Your task to perform on an android device: toggle translation in the chrome app Image 0: 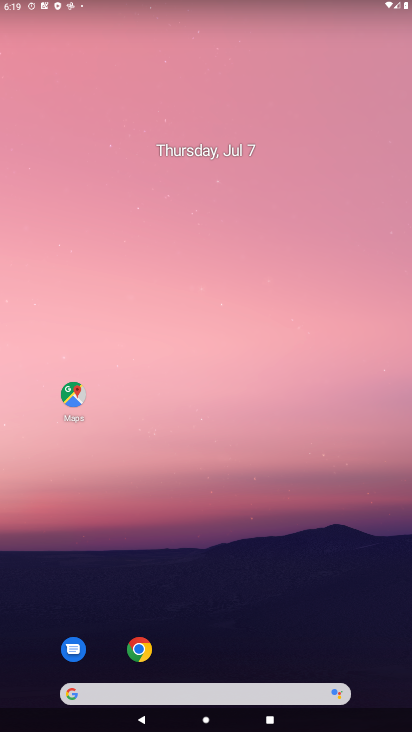
Step 0: drag from (375, 679) to (257, 6)
Your task to perform on an android device: toggle translation in the chrome app Image 1: 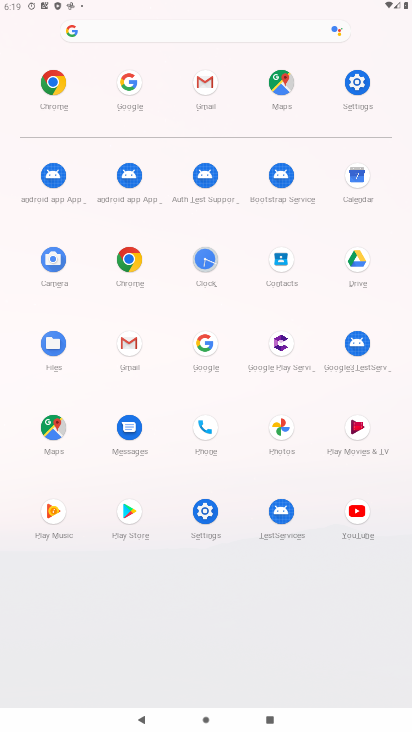
Step 1: click (49, 85)
Your task to perform on an android device: toggle translation in the chrome app Image 2: 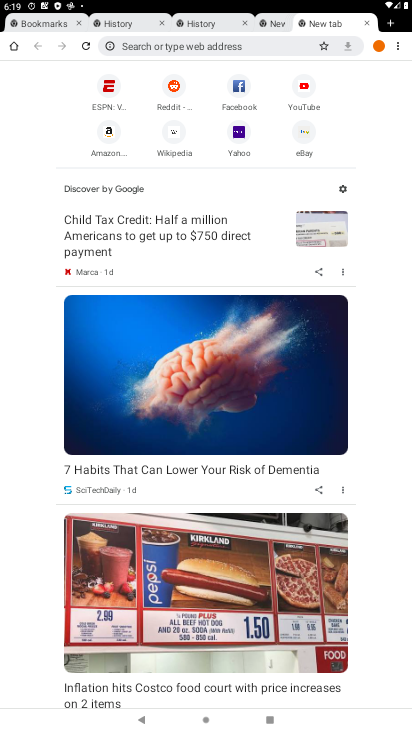
Step 2: click (400, 45)
Your task to perform on an android device: toggle translation in the chrome app Image 3: 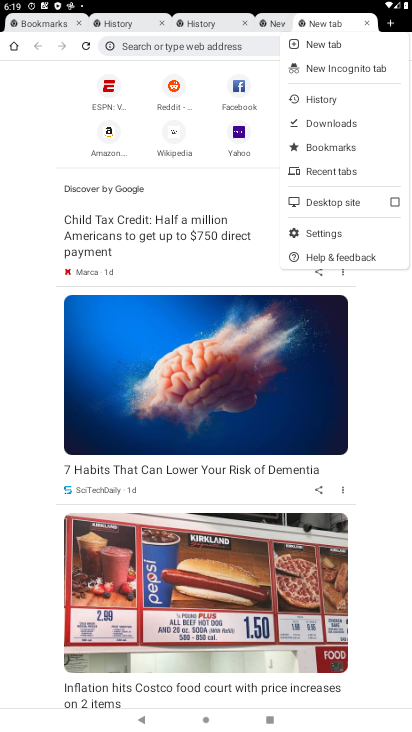
Step 3: click (332, 230)
Your task to perform on an android device: toggle translation in the chrome app Image 4: 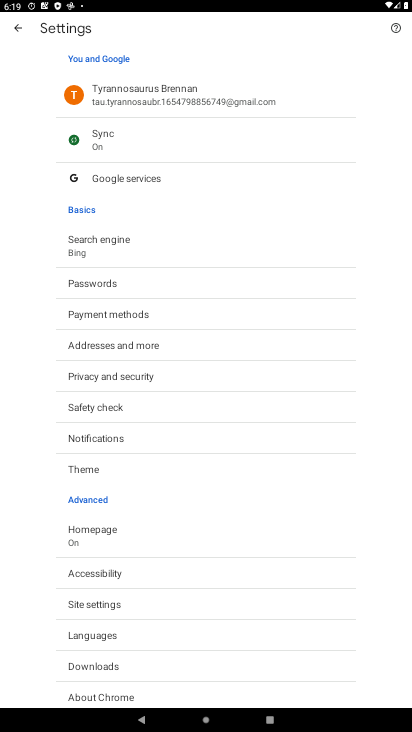
Step 4: click (120, 636)
Your task to perform on an android device: toggle translation in the chrome app Image 5: 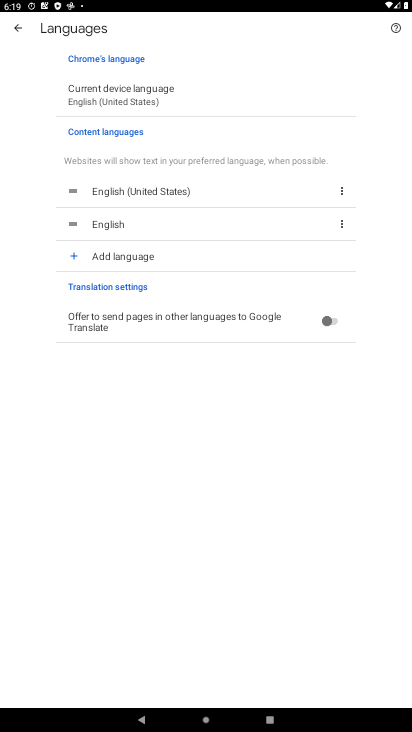
Step 5: click (320, 325)
Your task to perform on an android device: toggle translation in the chrome app Image 6: 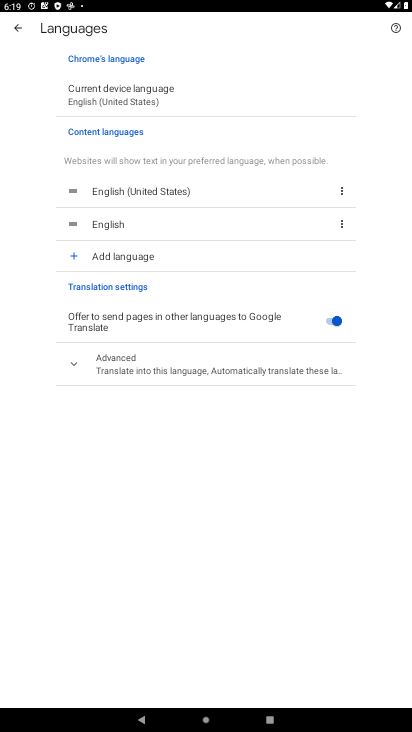
Step 6: task complete